Your task to perform on an android device: Go to Yahoo.com Image 0: 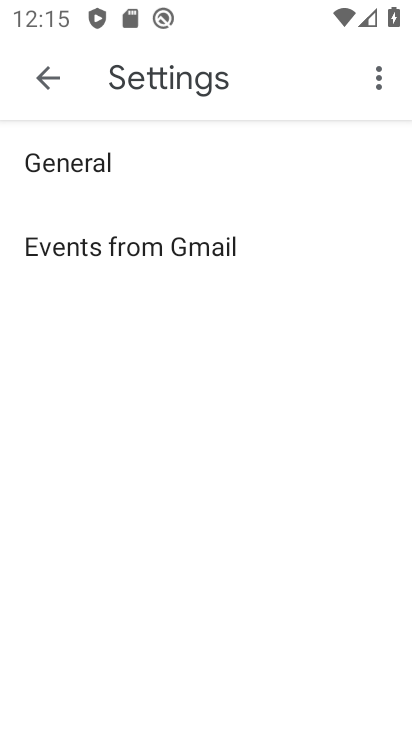
Step 0: press home button
Your task to perform on an android device: Go to Yahoo.com Image 1: 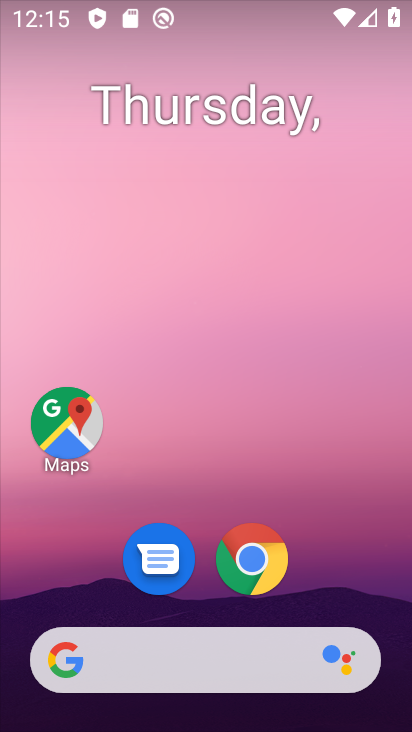
Step 1: click (241, 565)
Your task to perform on an android device: Go to Yahoo.com Image 2: 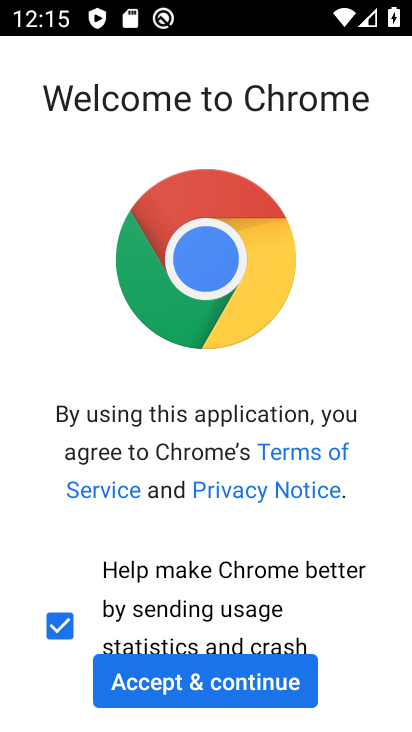
Step 2: click (220, 687)
Your task to perform on an android device: Go to Yahoo.com Image 3: 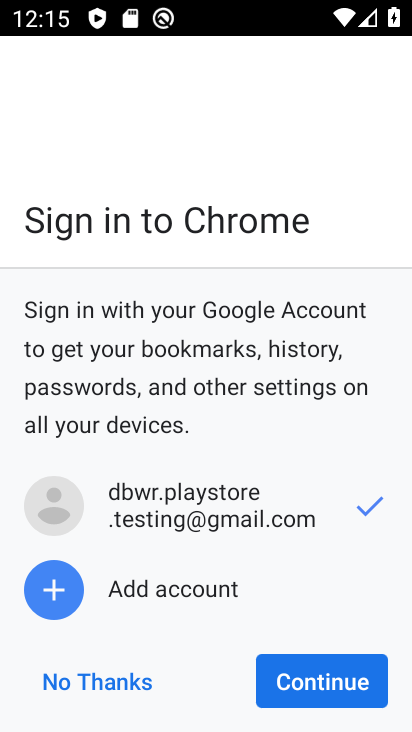
Step 3: click (323, 688)
Your task to perform on an android device: Go to Yahoo.com Image 4: 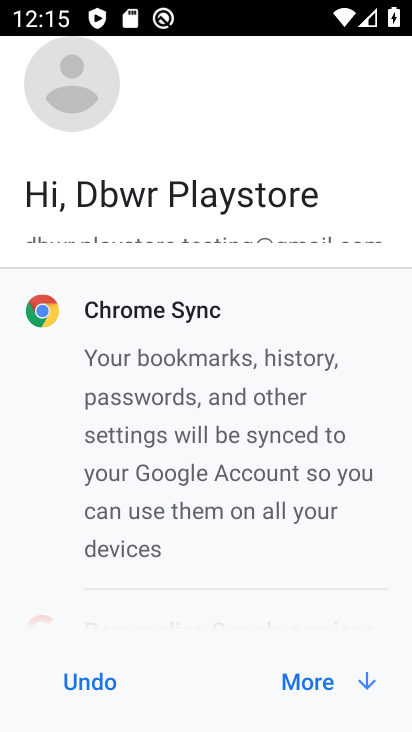
Step 4: click (336, 686)
Your task to perform on an android device: Go to Yahoo.com Image 5: 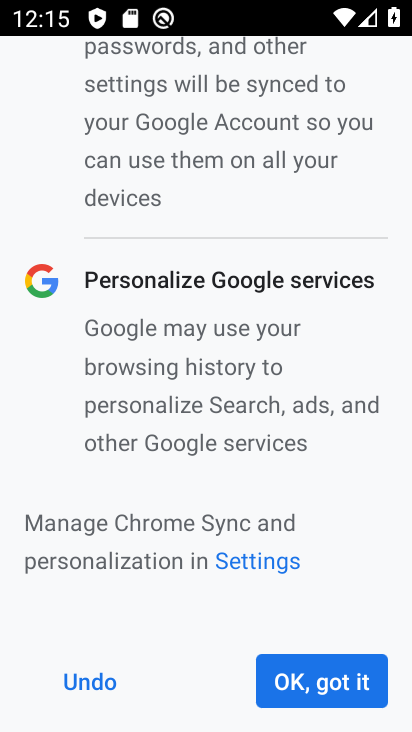
Step 5: click (334, 684)
Your task to perform on an android device: Go to Yahoo.com Image 6: 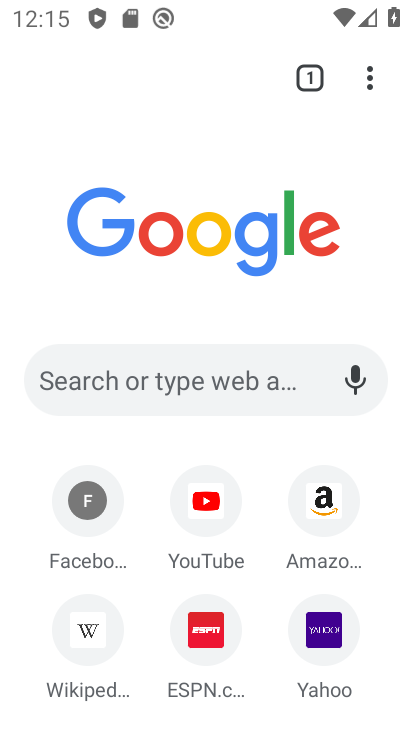
Step 6: click (330, 621)
Your task to perform on an android device: Go to Yahoo.com Image 7: 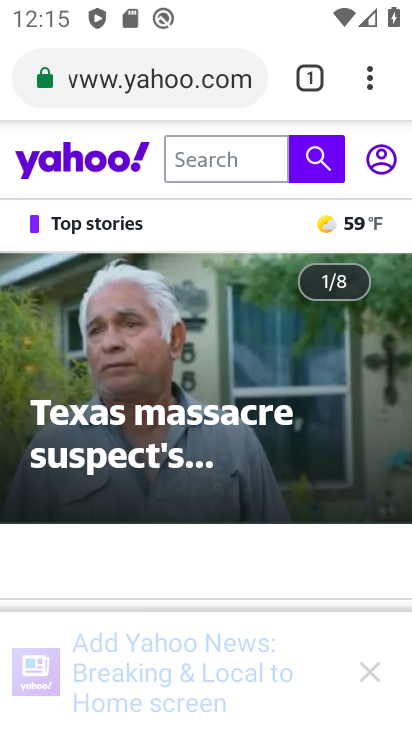
Step 7: task complete